Your task to perform on an android device: all mails in gmail Image 0: 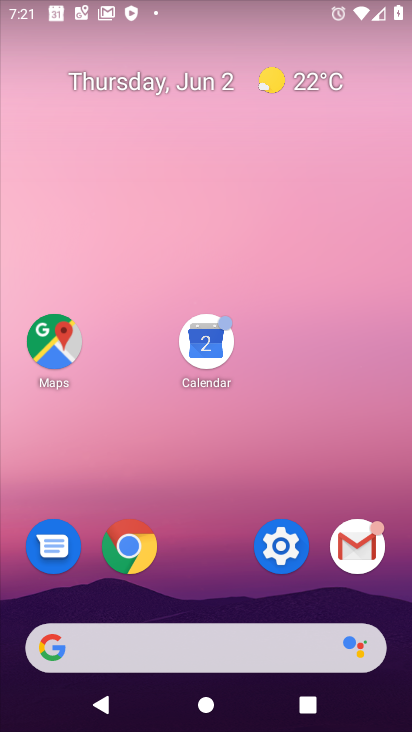
Step 0: press home button
Your task to perform on an android device: all mails in gmail Image 1: 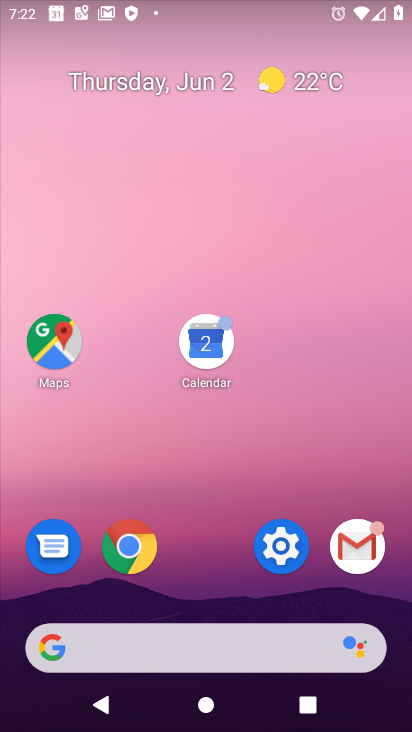
Step 1: click (346, 548)
Your task to perform on an android device: all mails in gmail Image 2: 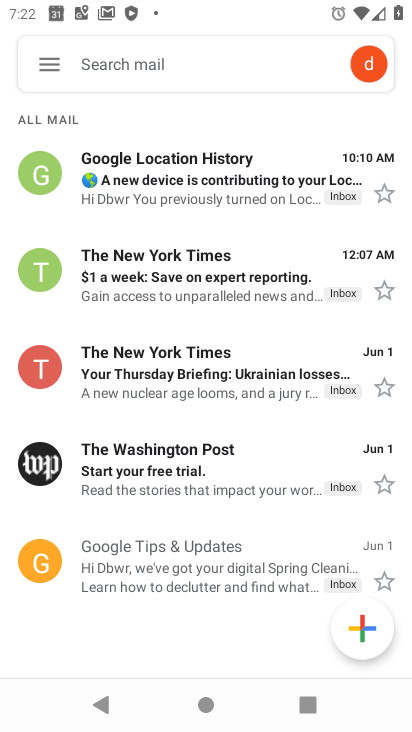
Step 2: click (37, 57)
Your task to perform on an android device: all mails in gmail Image 3: 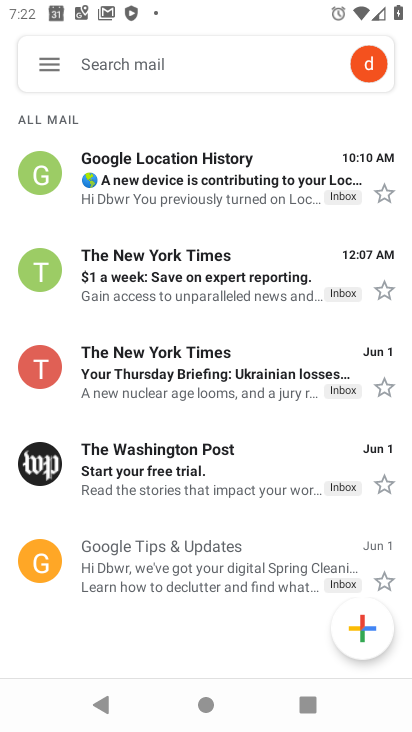
Step 3: click (42, 60)
Your task to perform on an android device: all mails in gmail Image 4: 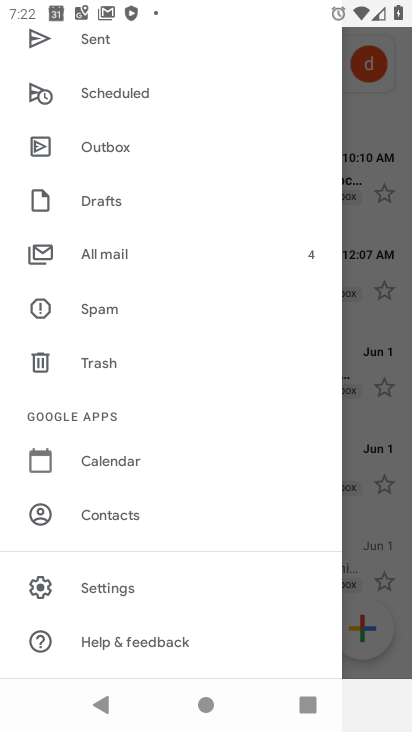
Step 4: drag from (126, 174) to (138, 257)
Your task to perform on an android device: all mails in gmail Image 5: 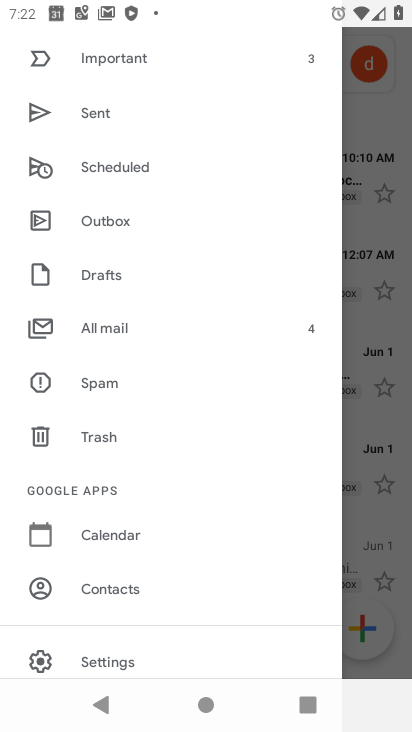
Step 5: click (105, 335)
Your task to perform on an android device: all mails in gmail Image 6: 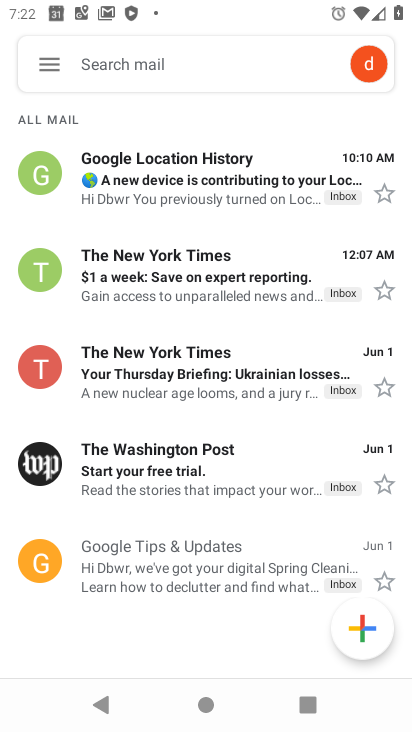
Step 6: task complete